Your task to perform on an android device: Clear the cart on costco.com. Add "razer huntsman" to the cart on costco.com Image 0: 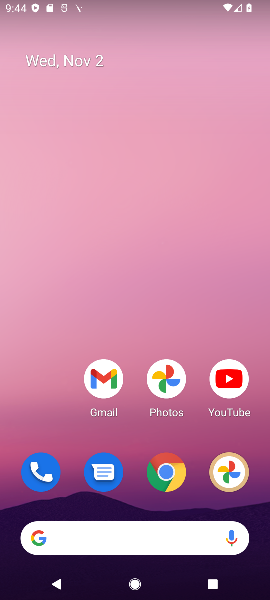
Step 0: click (164, 472)
Your task to perform on an android device: Clear the cart on costco.com. Add "razer huntsman" to the cart on costco.com Image 1: 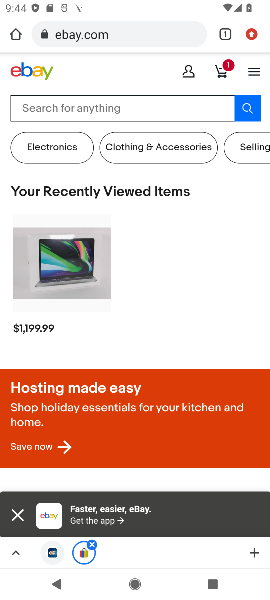
Step 1: click (129, 37)
Your task to perform on an android device: Clear the cart on costco.com. Add "razer huntsman" to the cart on costco.com Image 2: 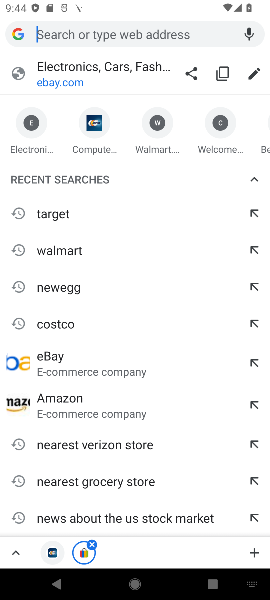
Step 2: type "costco.com"
Your task to perform on an android device: Clear the cart on costco.com. Add "razer huntsman" to the cart on costco.com Image 3: 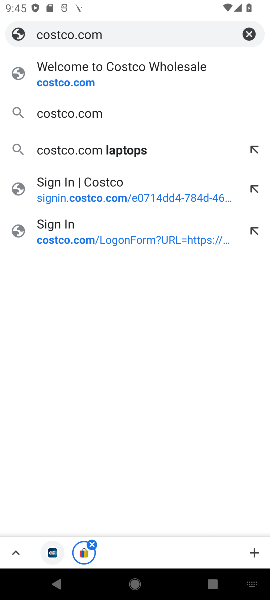
Step 3: click (116, 70)
Your task to perform on an android device: Clear the cart on costco.com. Add "razer huntsman" to the cart on costco.com Image 4: 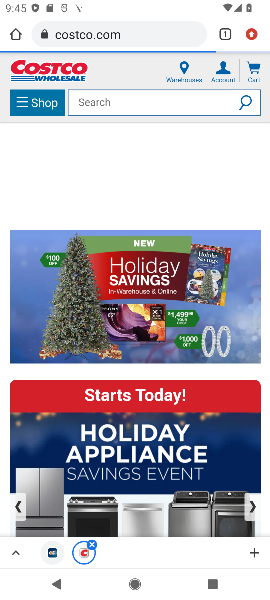
Step 4: click (245, 101)
Your task to perform on an android device: Clear the cart on costco.com. Add "razer huntsman" to the cart on costco.com Image 5: 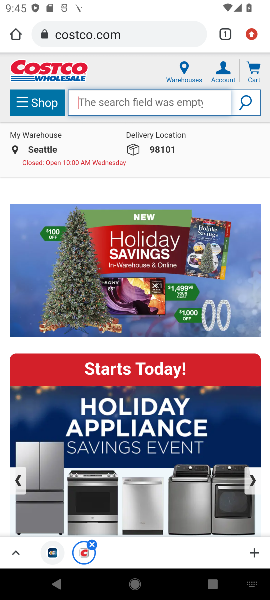
Step 5: click (159, 97)
Your task to perform on an android device: Clear the cart on costco.com. Add "razer huntsman" to the cart on costco.com Image 6: 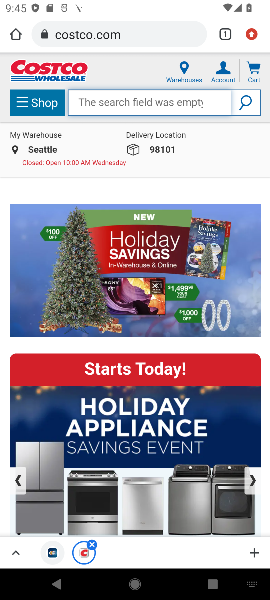
Step 6: type "razer huntsman"
Your task to perform on an android device: Clear the cart on costco.com. Add "razer huntsman" to the cart on costco.com Image 7: 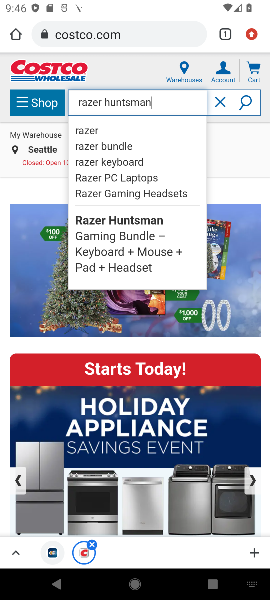
Step 7: click (91, 129)
Your task to perform on an android device: Clear the cart on costco.com. Add "razer huntsman" to the cart on costco.com Image 8: 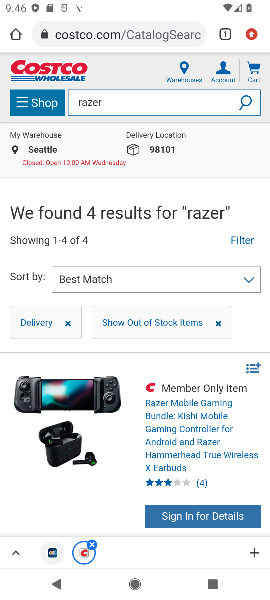
Step 8: drag from (220, 453) to (222, 188)
Your task to perform on an android device: Clear the cart on costco.com. Add "razer huntsman" to the cart on costco.com Image 9: 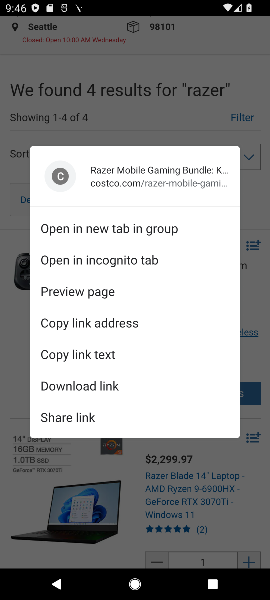
Step 9: click (260, 304)
Your task to perform on an android device: Clear the cart on costco.com. Add "razer huntsman" to the cart on costco.com Image 10: 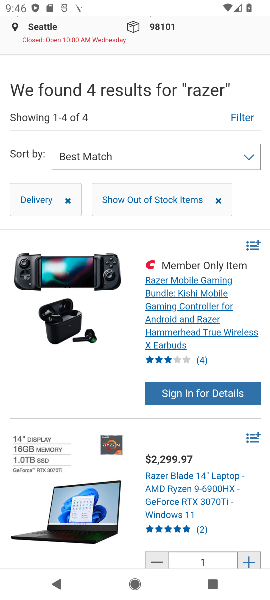
Step 10: click (202, 394)
Your task to perform on an android device: Clear the cart on costco.com. Add "razer huntsman" to the cart on costco.com Image 11: 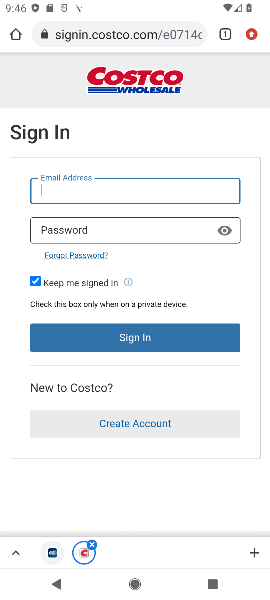
Step 11: task complete